Your task to perform on an android device: turn on airplane mode Image 0: 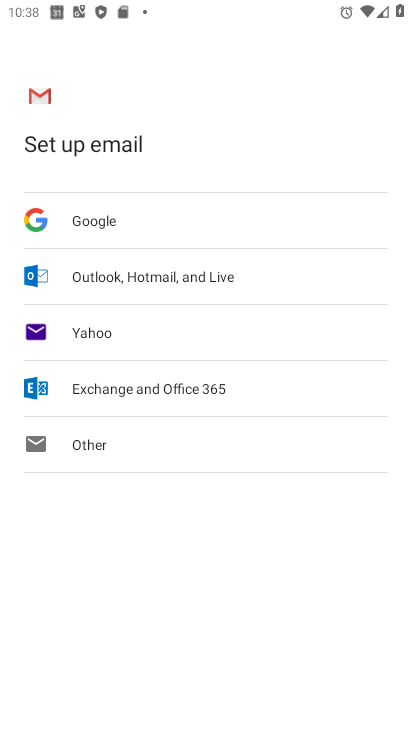
Step 0: press home button
Your task to perform on an android device: turn on airplane mode Image 1: 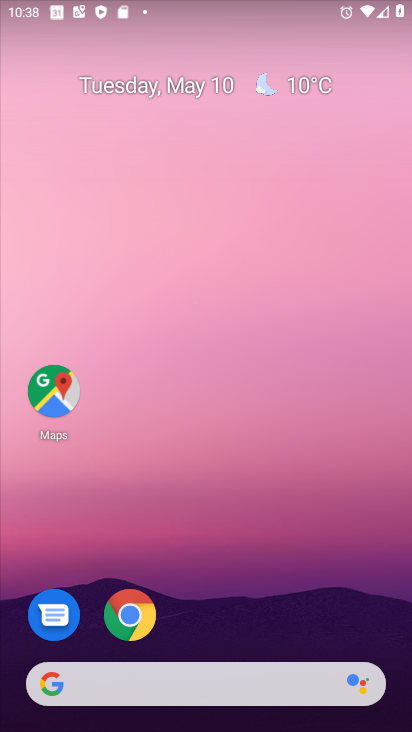
Step 1: drag from (328, 11) to (308, 530)
Your task to perform on an android device: turn on airplane mode Image 2: 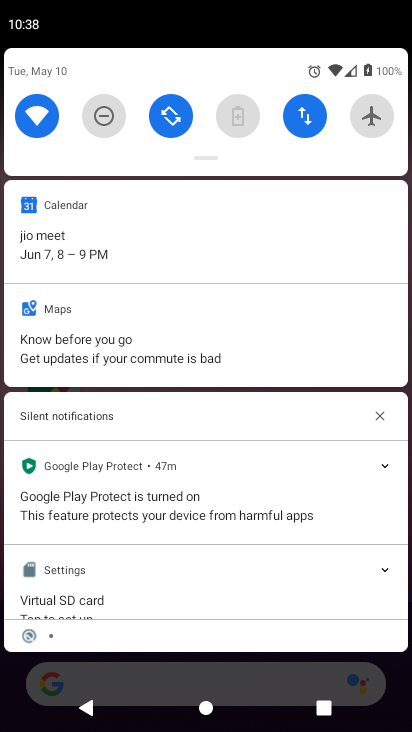
Step 2: click (368, 113)
Your task to perform on an android device: turn on airplane mode Image 3: 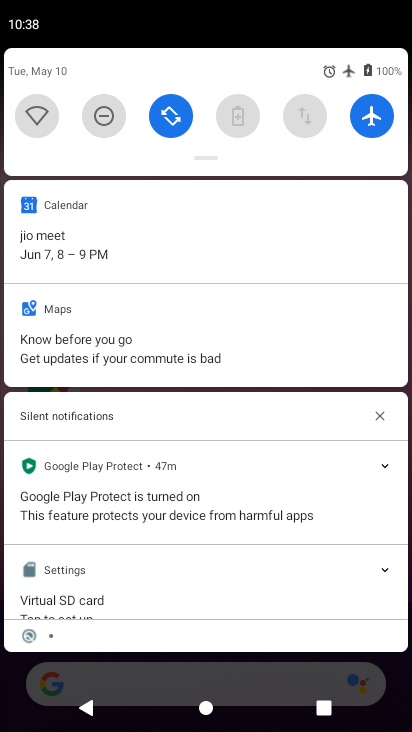
Step 3: task complete